Your task to perform on an android device: Search for "beats solo 3" on amazon.com, select the first entry, add it to the cart, then select checkout. Image 0: 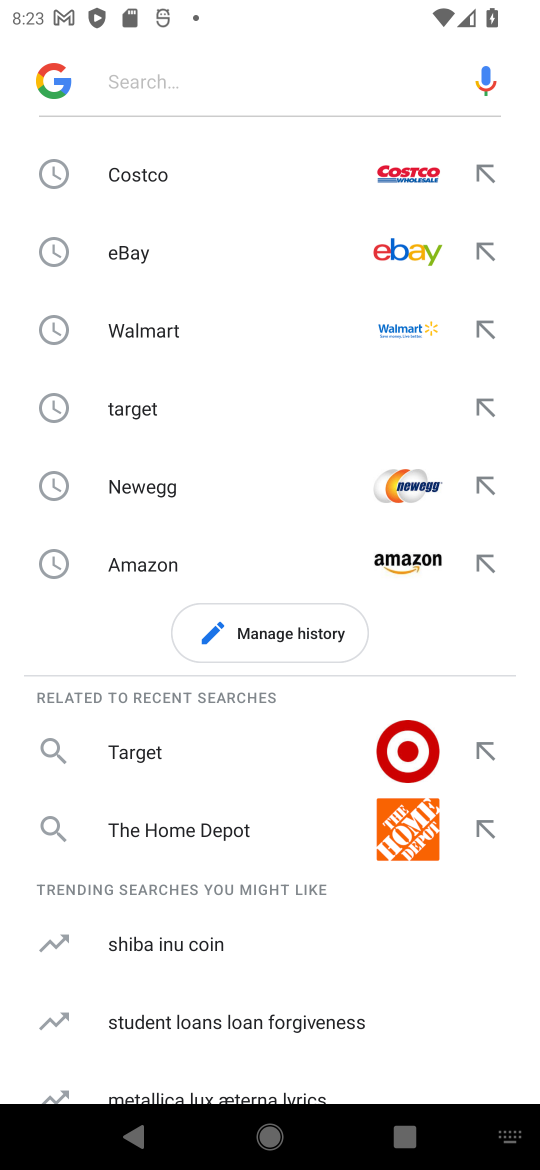
Step 0: press home button
Your task to perform on an android device: Search for "beats solo 3" on amazon.com, select the first entry, add it to the cart, then select checkout. Image 1: 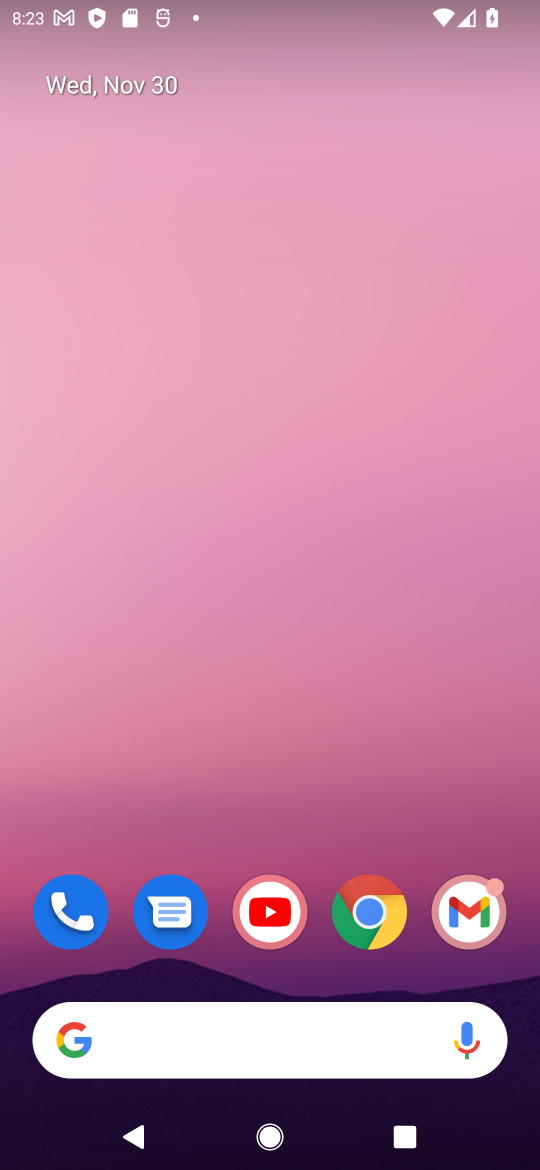
Step 1: click (200, 1060)
Your task to perform on an android device: Search for "beats solo 3" on amazon.com, select the first entry, add it to the cart, then select checkout. Image 2: 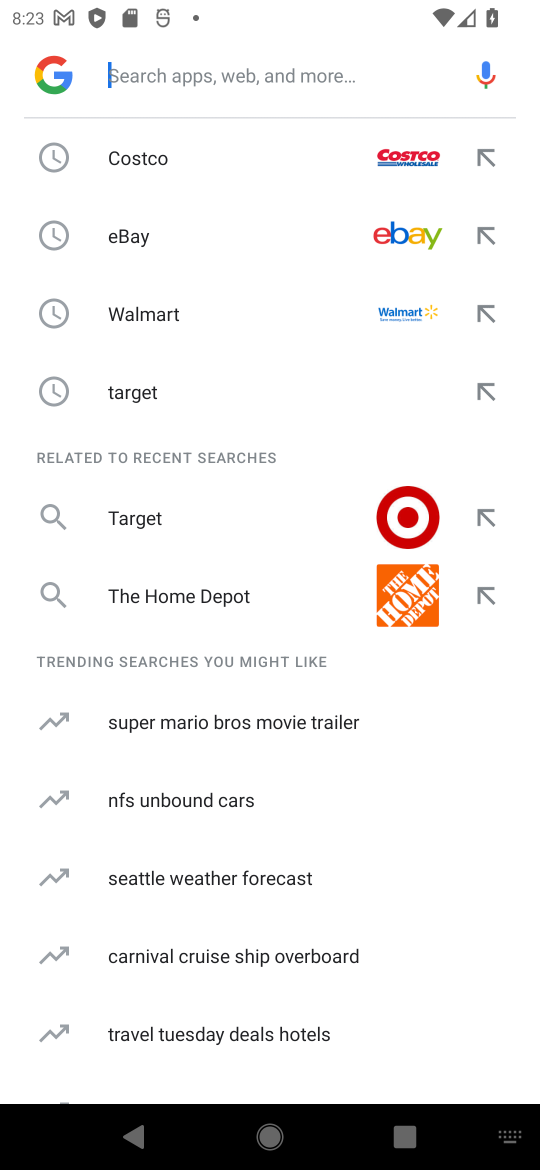
Step 2: type "amazon.com"
Your task to perform on an android device: Search for "beats solo 3" on amazon.com, select the first entry, add it to the cart, then select checkout. Image 3: 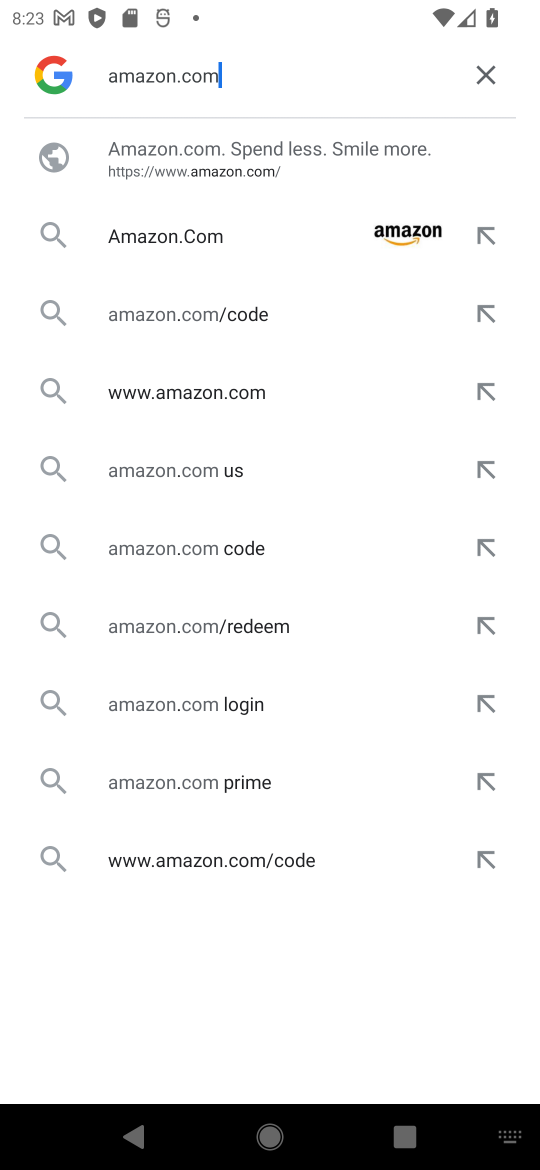
Step 3: click (333, 251)
Your task to perform on an android device: Search for "beats solo 3" on amazon.com, select the first entry, add it to the cart, then select checkout. Image 4: 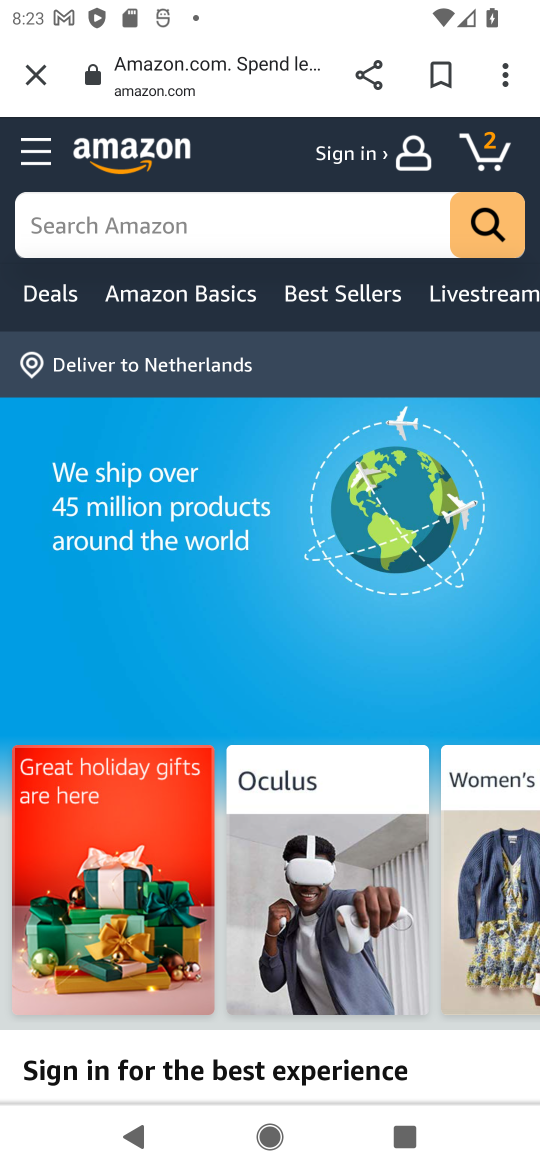
Step 4: click (236, 215)
Your task to perform on an android device: Search for "beats solo 3" on amazon.com, select the first entry, add it to the cart, then select checkout. Image 5: 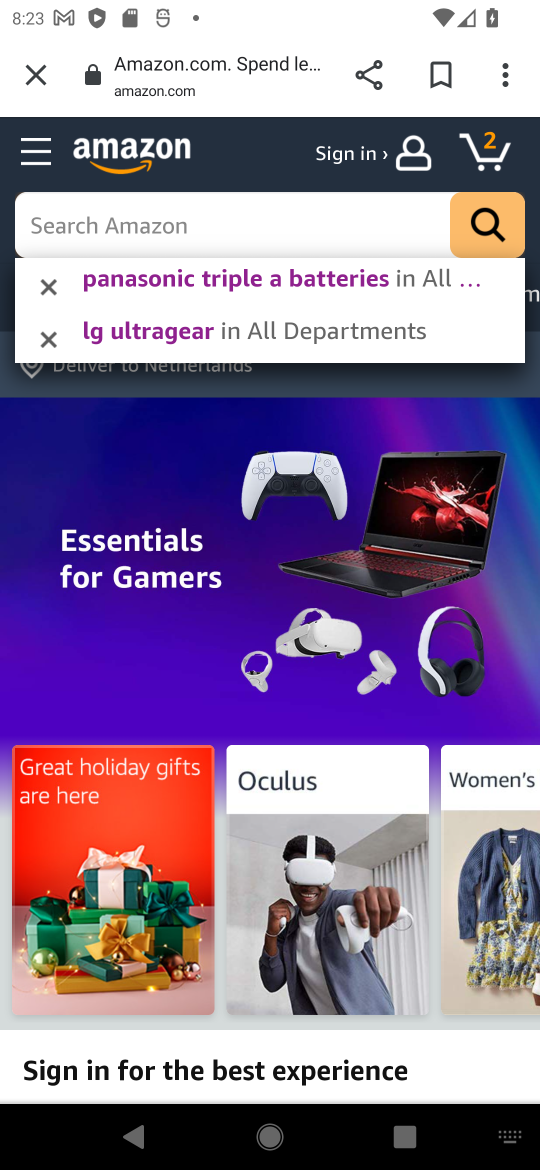
Step 5: type "beats solo 3"
Your task to perform on an android device: Search for "beats solo 3" on amazon.com, select the first entry, add it to the cart, then select checkout. Image 6: 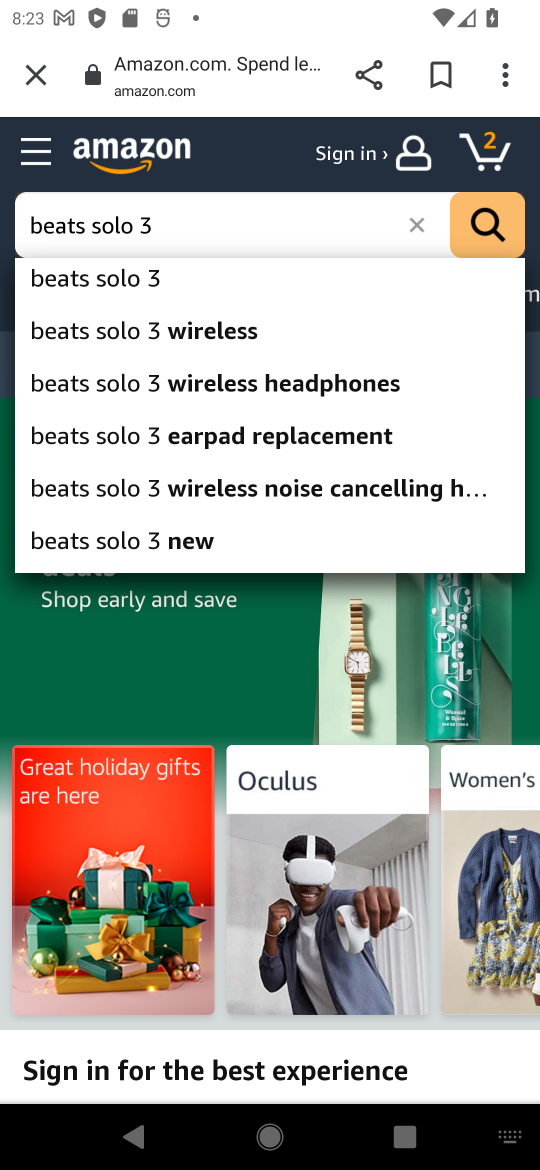
Step 6: click (162, 277)
Your task to perform on an android device: Search for "beats solo 3" on amazon.com, select the first entry, add it to the cart, then select checkout. Image 7: 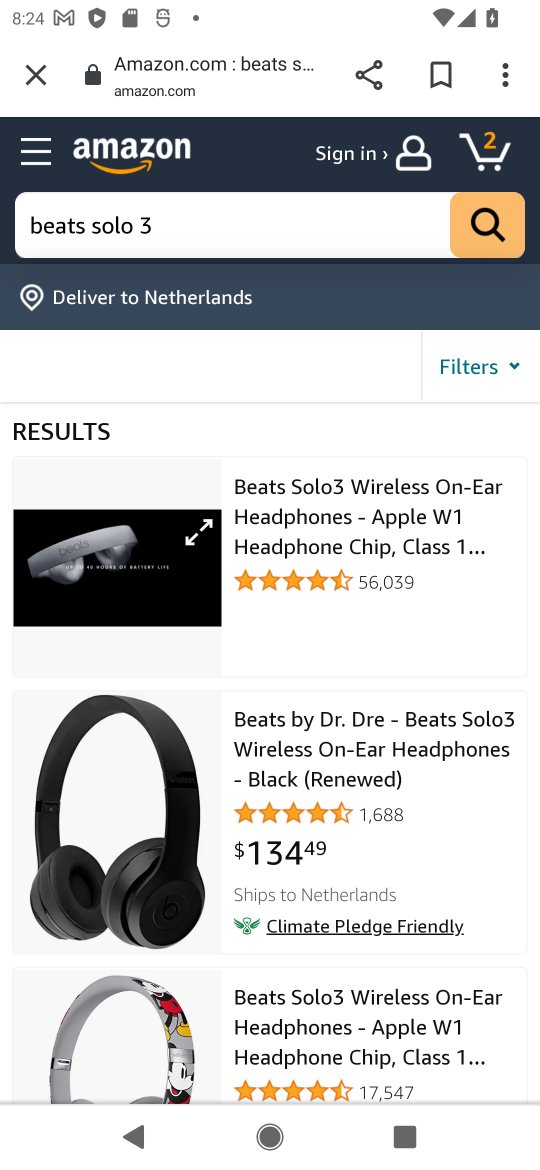
Step 7: click (213, 576)
Your task to perform on an android device: Search for "beats solo 3" on amazon.com, select the first entry, add it to the cart, then select checkout. Image 8: 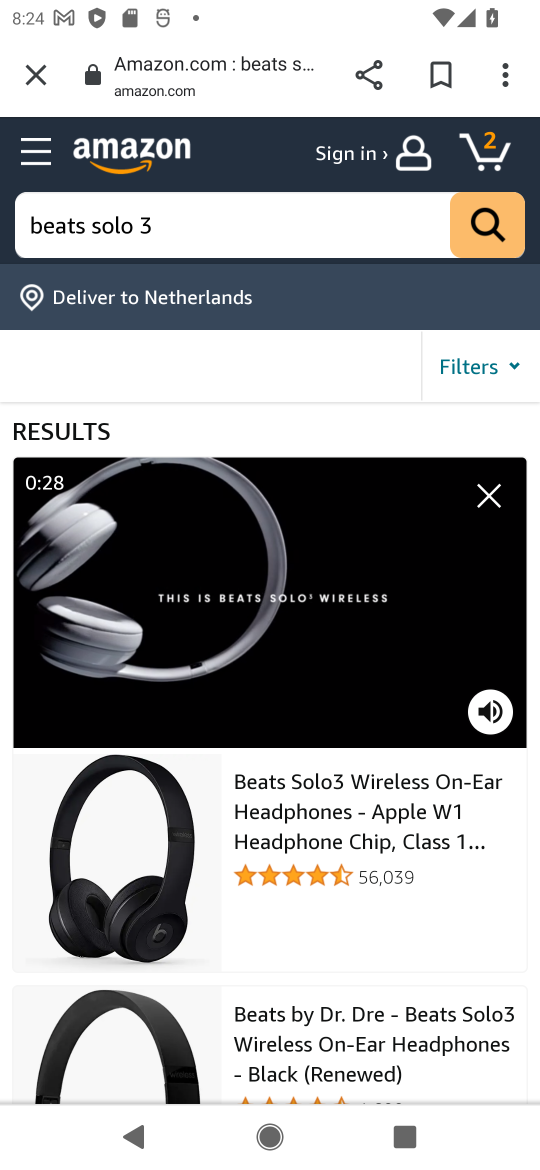
Step 8: click (477, 491)
Your task to perform on an android device: Search for "beats solo 3" on amazon.com, select the first entry, add it to the cart, then select checkout. Image 9: 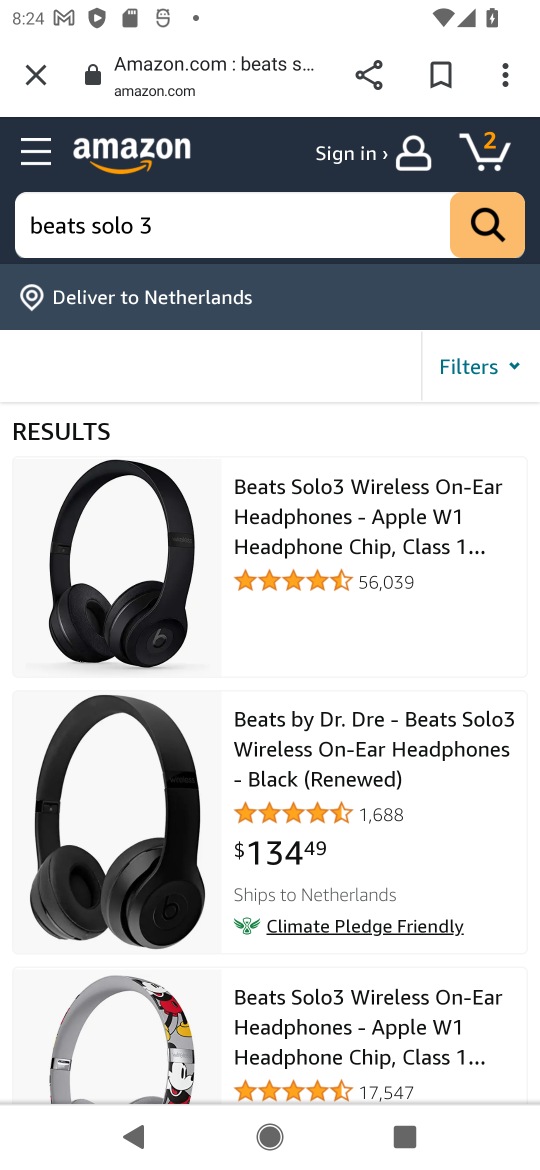
Step 9: click (316, 560)
Your task to perform on an android device: Search for "beats solo 3" on amazon.com, select the first entry, add it to the cart, then select checkout. Image 10: 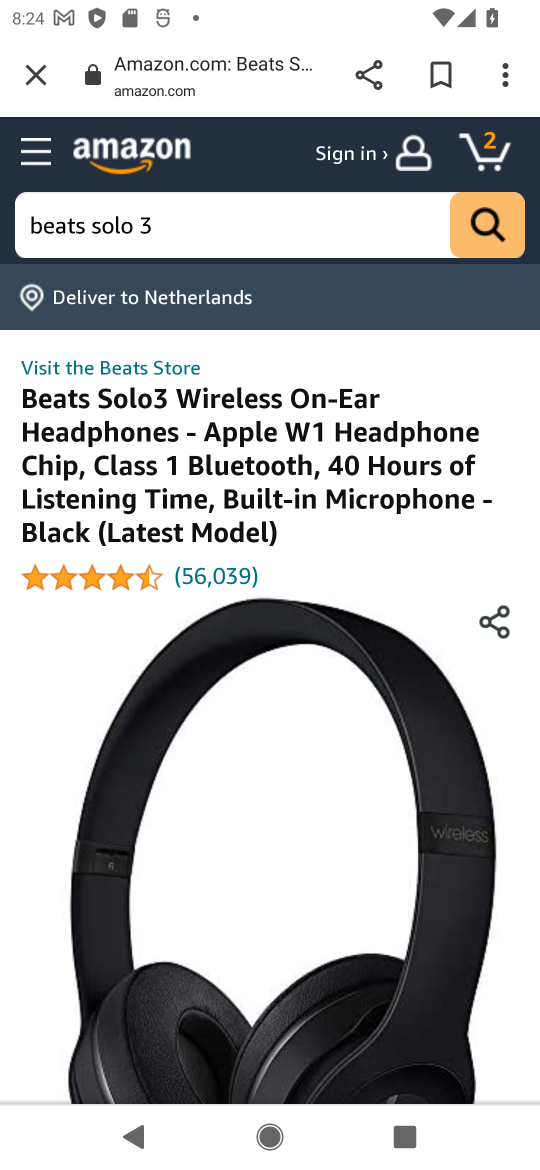
Step 10: task complete